Your task to perform on an android device: Show me popular videos on Youtube Image 0: 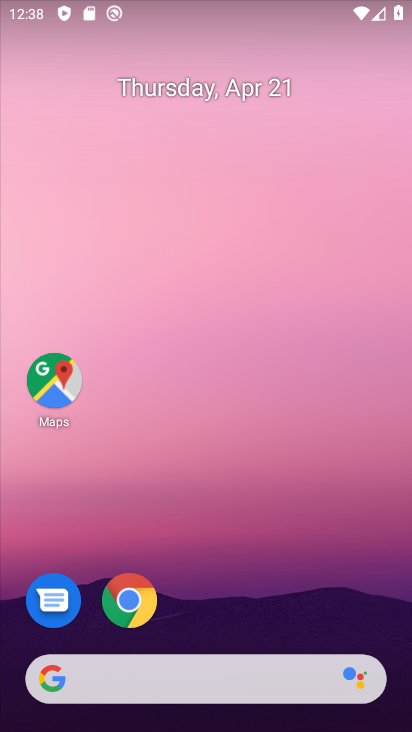
Step 0: drag from (383, 626) to (333, 209)
Your task to perform on an android device: Show me popular videos on Youtube Image 1: 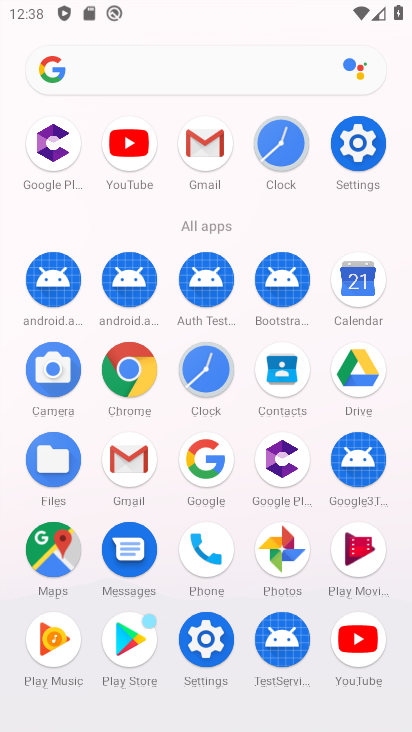
Step 1: click (356, 640)
Your task to perform on an android device: Show me popular videos on Youtube Image 2: 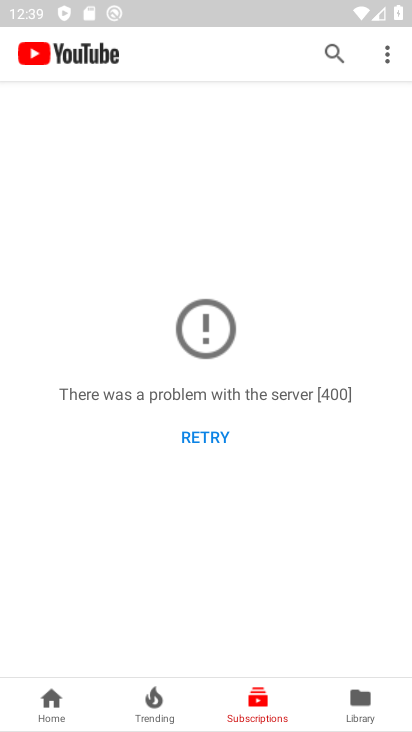
Step 2: click (136, 720)
Your task to perform on an android device: Show me popular videos on Youtube Image 3: 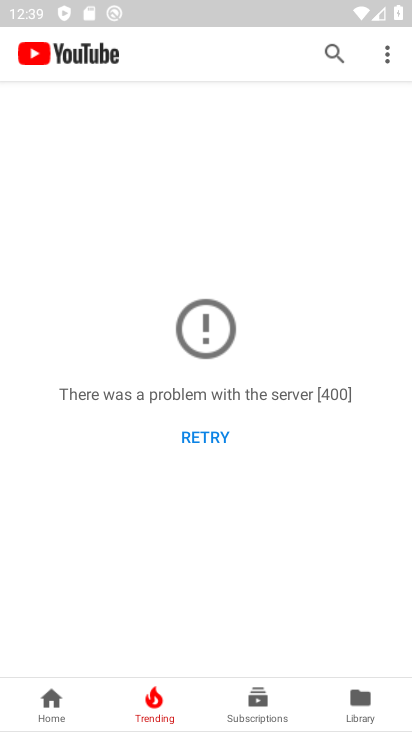
Step 3: click (218, 432)
Your task to perform on an android device: Show me popular videos on Youtube Image 4: 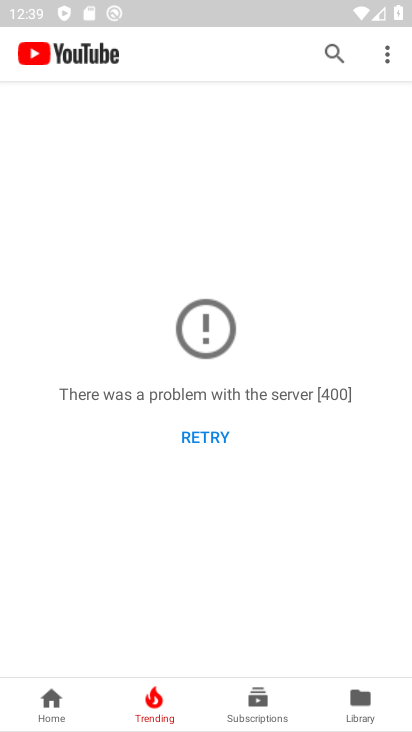
Step 4: task complete